Your task to perform on an android device: manage bookmarks in the chrome app Image 0: 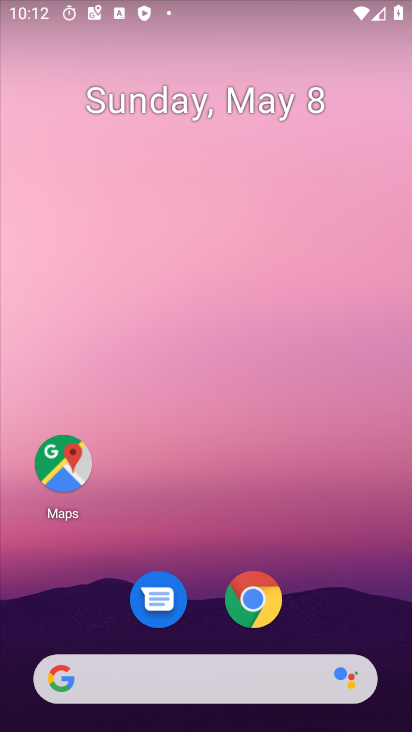
Step 0: click (252, 604)
Your task to perform on an android device: manage bookmarks in the chrome app Image 1: 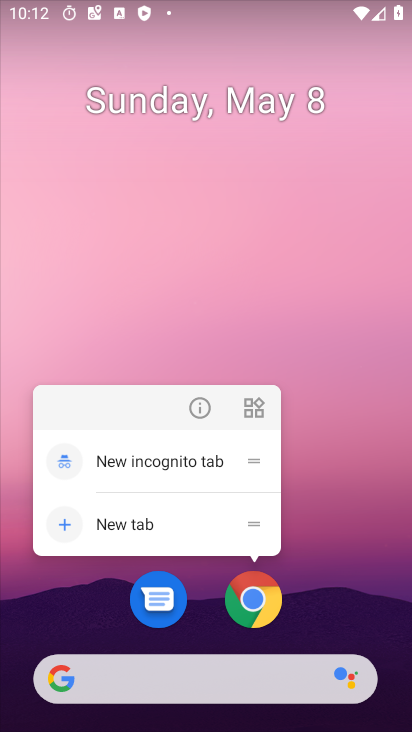
Step 1: click (251, 603)
Your task to perform on an android device: manage bookmarks in the chrome app Image 2: 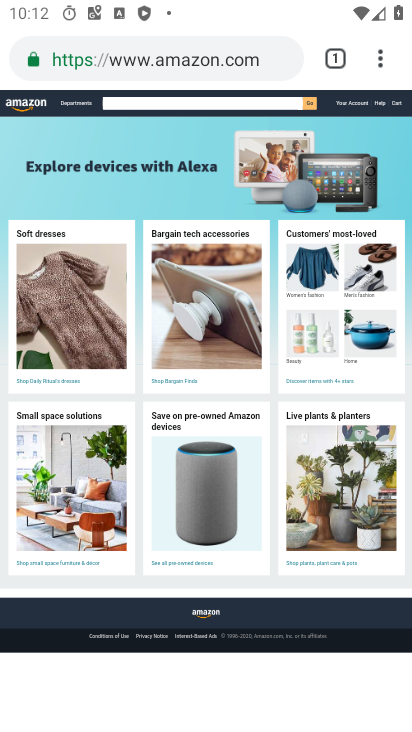
Step 2: click (379, 68)
Your task to perform on an android device: manage bookmarks in the chrome app Image 3: 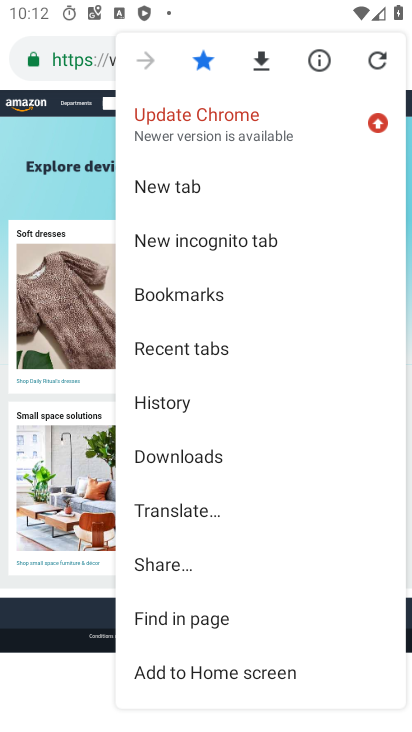
Step 3: drag from (232, 555) to (260, 342)
Your task to perform on an android device: manage bookmarks in the chrome app Image 4: 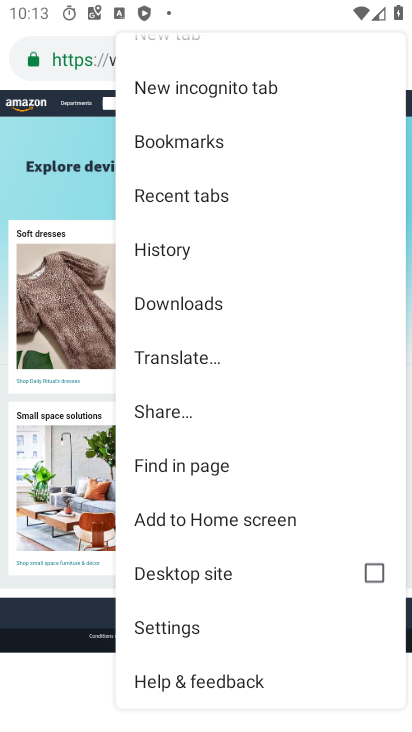
Step 4: click (171, 148)
Your task to perform on an android device: manage bookmarks in the chrome app Image 5: 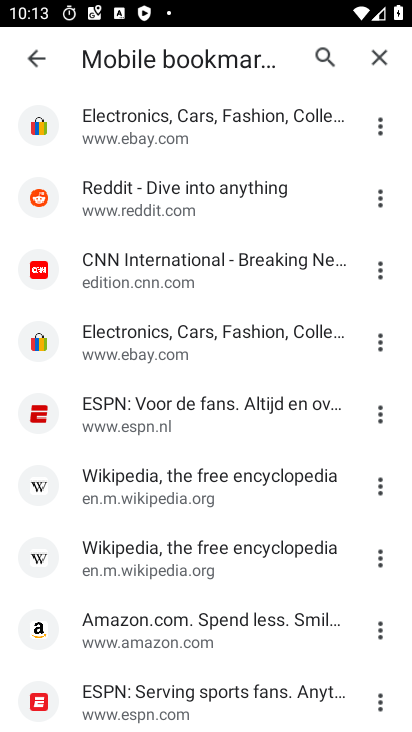
Step 5: task complete